Your task to perform on an android device: refresh tabs in the chrome app Image 0: 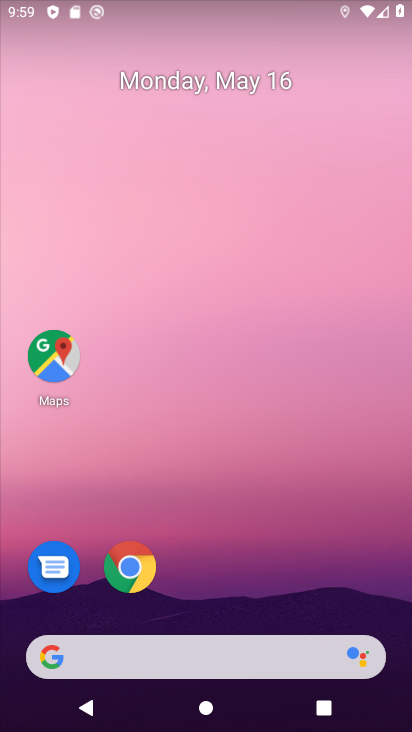
Step 0: click (132, 570)
Your task to perform on an android device: refresh tabs in the chrome app Image 1: 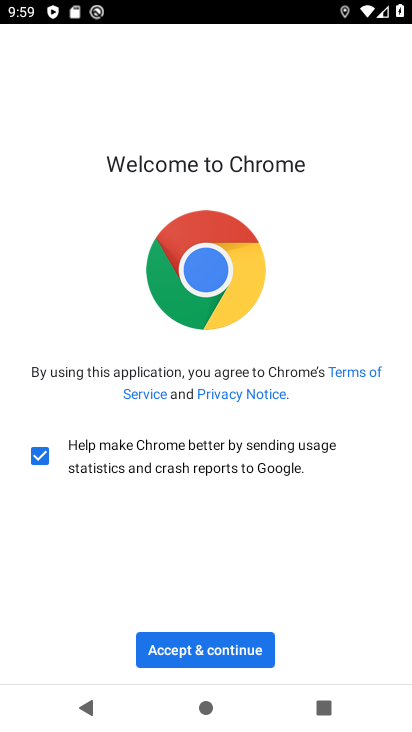
Step 1: click (249, 657)
Your task to perform on an android device: refresh tabs in the chrome app Image 2: 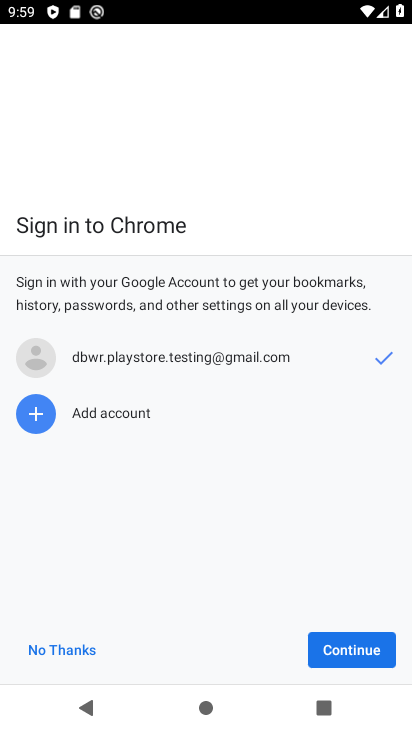
Step 2: click (326, 648)
Your task to perform on an android device: refresh tabs in the chrome app Image 3: 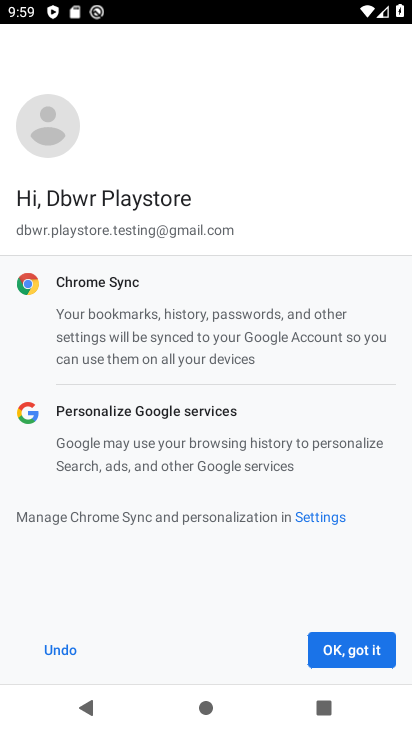
Step 3: click (326, 648)
Your task to perform on an android device: refresh tabs in the chrome app Image 4: 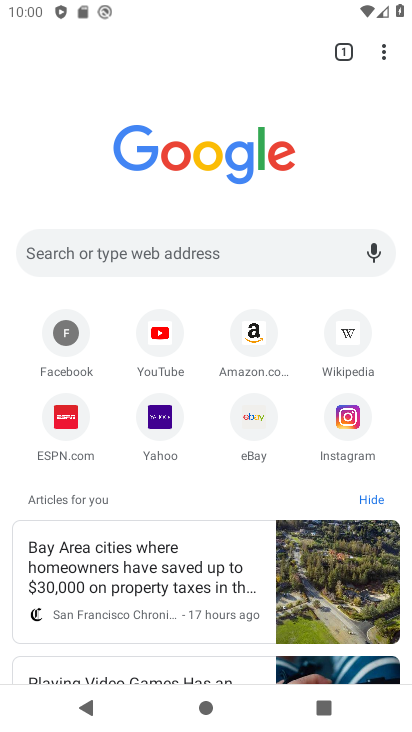
Step 4: click (383, 55)
Your task to perform on an android device: refresh tabs in the chrome app Image 5: 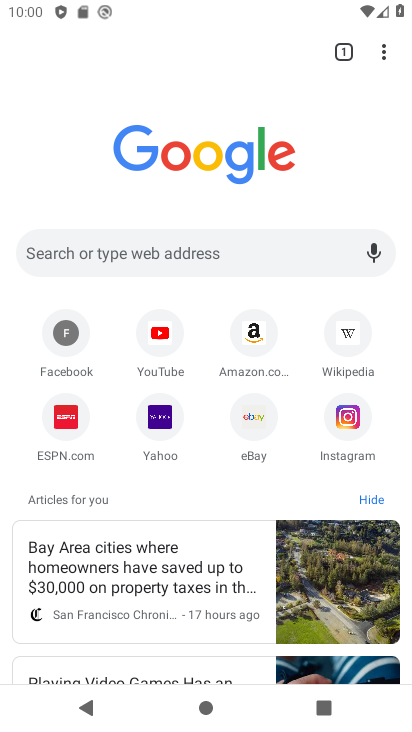
Step 5: click (387, 47)
Your task to perform on an android device: refresh tabs in the chrome app Image 6: 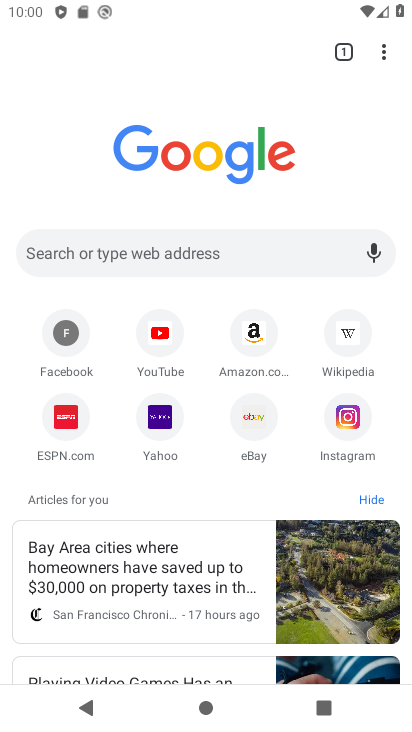
Step 6: click (386, 48)
Your task to perform on an android device: refresh tabs in the chrome app Image 7: 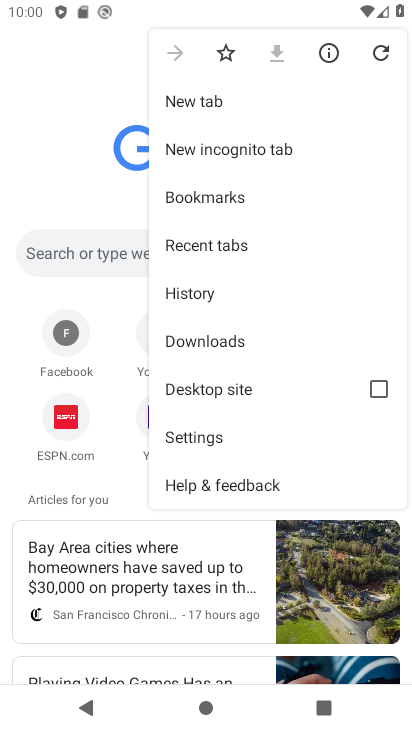
Step 7: click (368, 58)
Your task to perform on an android device: refresh tabs in the chrome app Image 8: 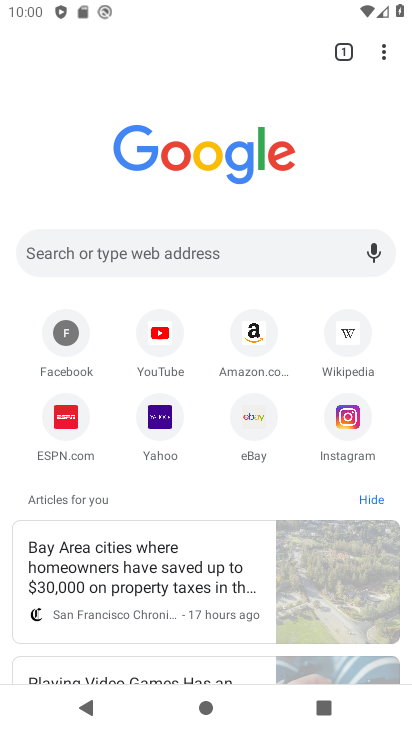
Step 8: click (383, 52)
Your task to perform on an android device: refresh tabs in the chrome app Image 9: 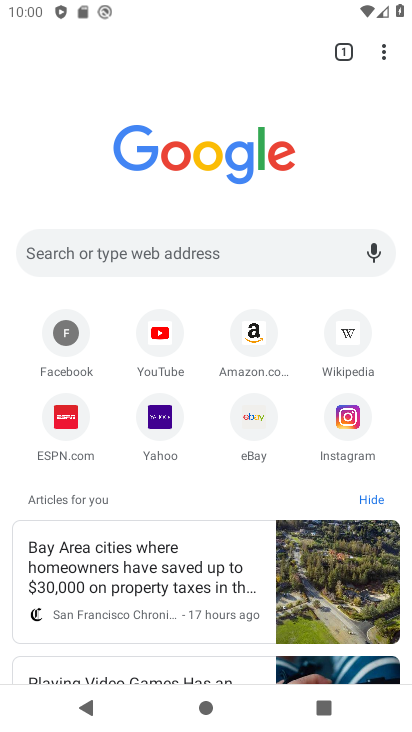
Step 9: task complete